Your task to perform on an android device: Go to Android settings Image 0: 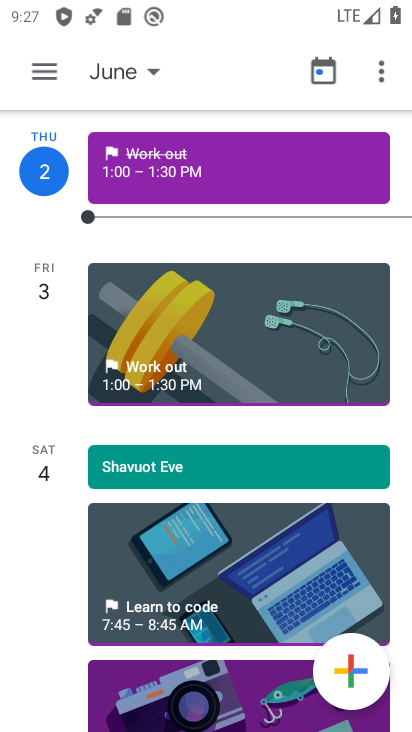
Step 0: press home button
Your task to perform on an android device: Go to Android settings Image 1: 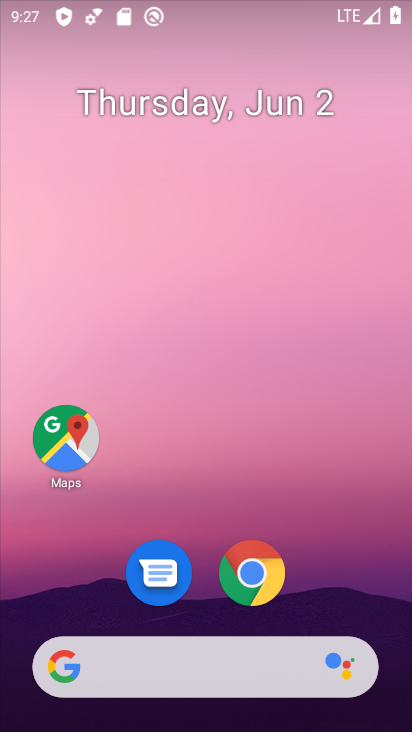
Step 1: drag from (332, 531) to (219, 175)
Your task to perform on an android device: Go to Android settings Image 2: 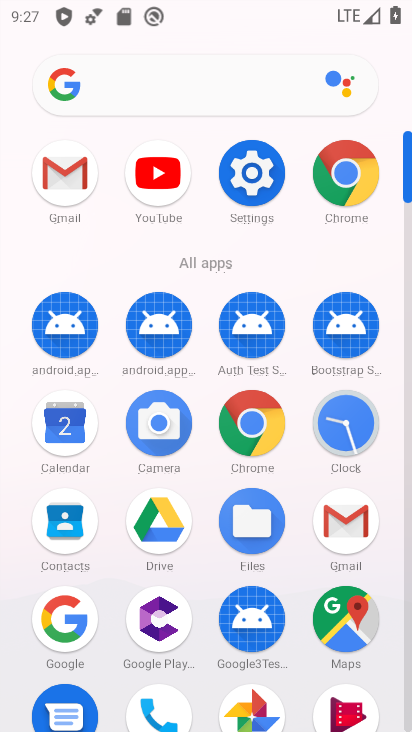
Step 2: click (274, 172)
Your task to perform on an android device: Go to Android settings Image 3: 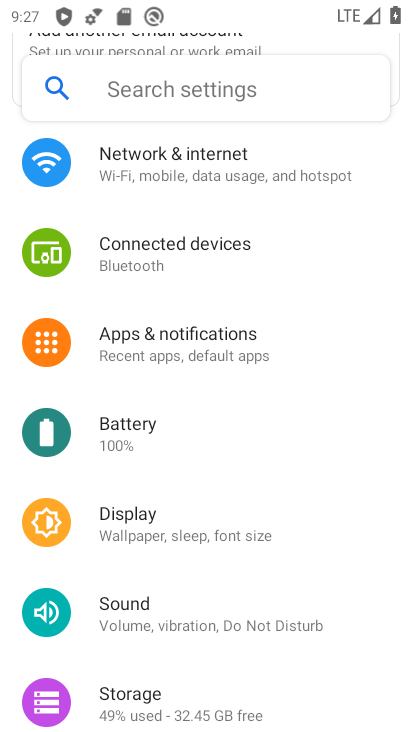
Step 3: task complete